Your task to perform on an android device: Open maps Image 0: 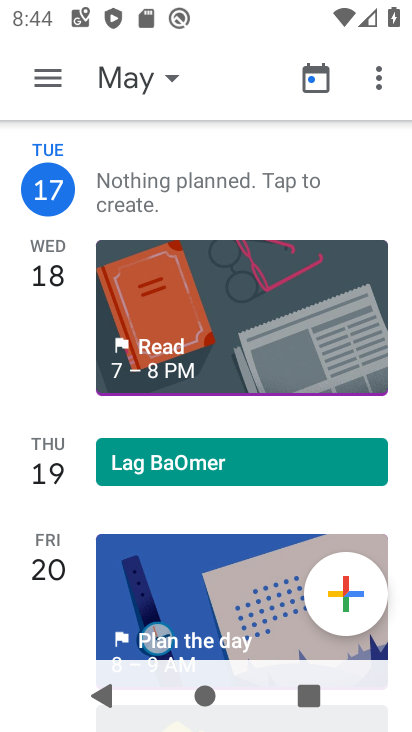
Step 0: press home button
Your task to perform on an android device: Open maps Image 1: 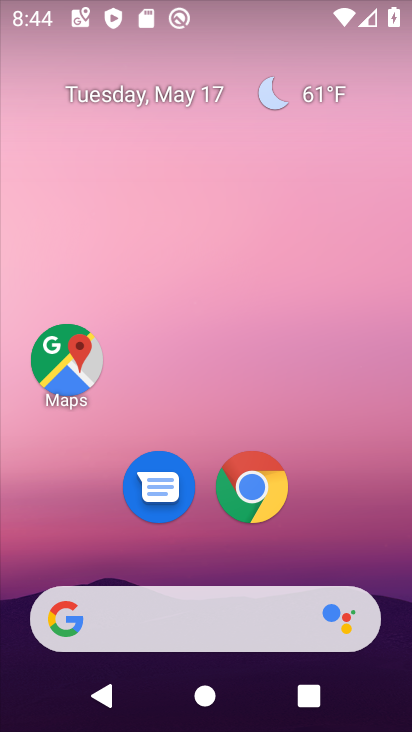
Step 1: click (77, 373)
Your task to perform on an android device: Open maps Image 2: 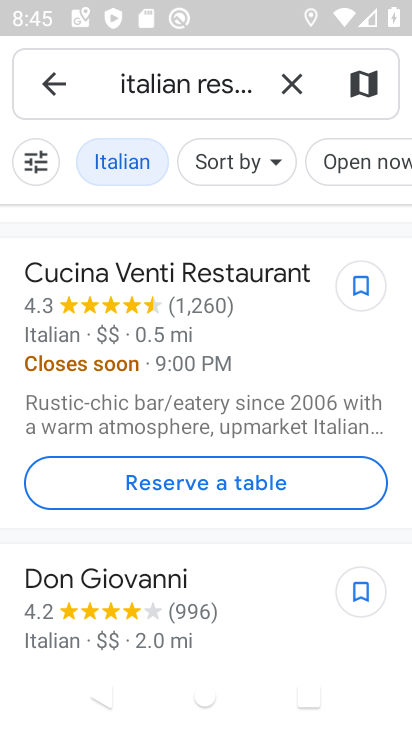
Step 2: task complete